Your task to perform on an android device: turn off sleep mode Image 0: 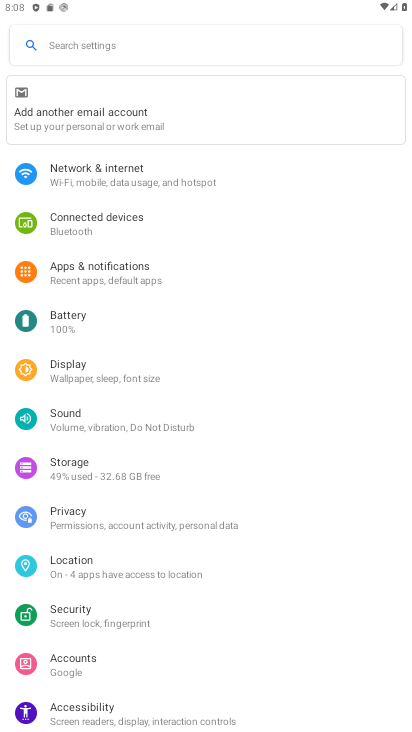
Step 0: press home button
Your task to perform on an android device: turn off sleep mode Image 1: 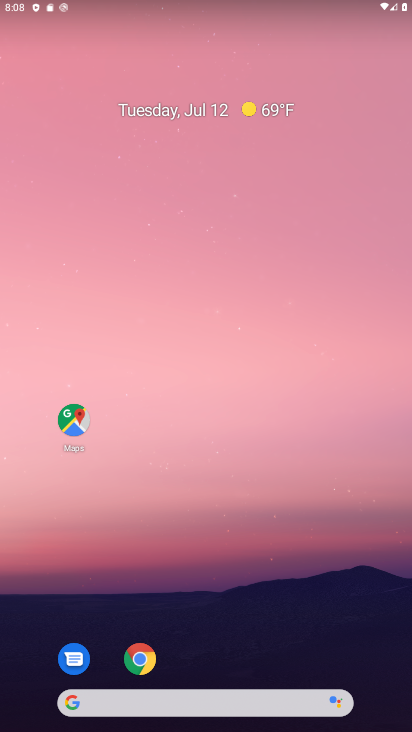
Step 1: drag from (207, 718) to (237, 178)
Your task to perform on an android device: turn off sleep mode Image 2: 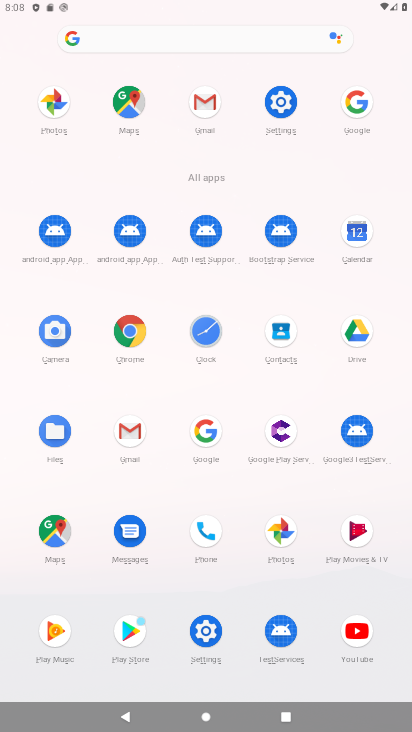
Step 2: click (275, 106)
Your task to perform on an android device: turn off sleep mode Image 3: 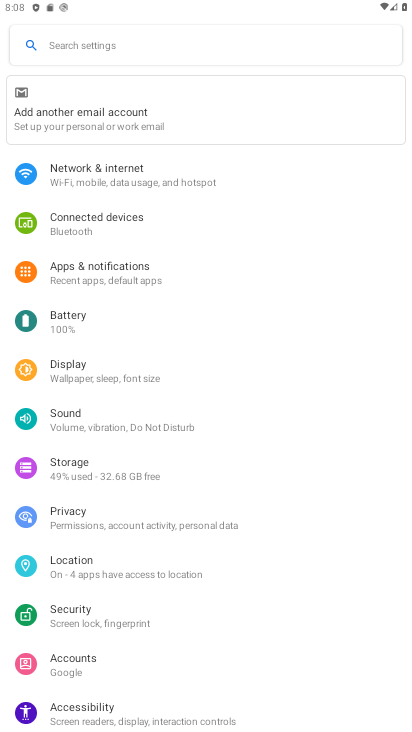
Step 3: click (89, 175)
Your task to perform on an android device: turn off sleep mode Image 4: 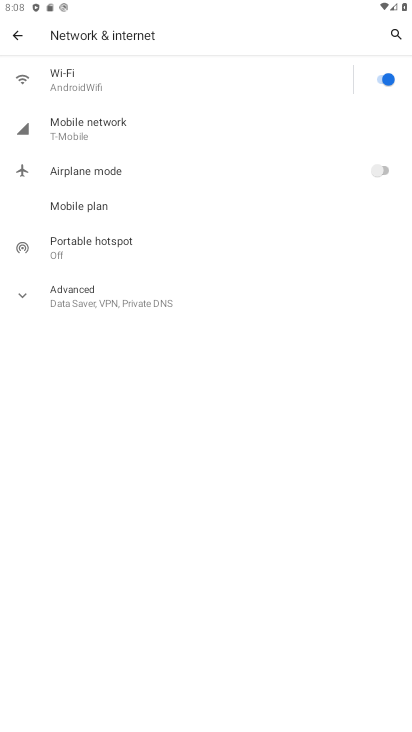
Step 4: task complete